Your task to perform on an android device: Open Youtube and go to the subscriptions tab Image 0: 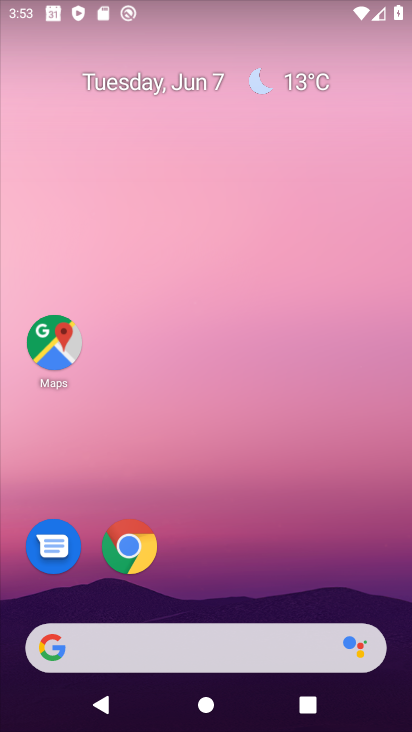
Step 0: drag from (166, 597) to (218, 216)
Your task to perform on an android device: Open Youtube and go to the subscriptions tab Image 1: 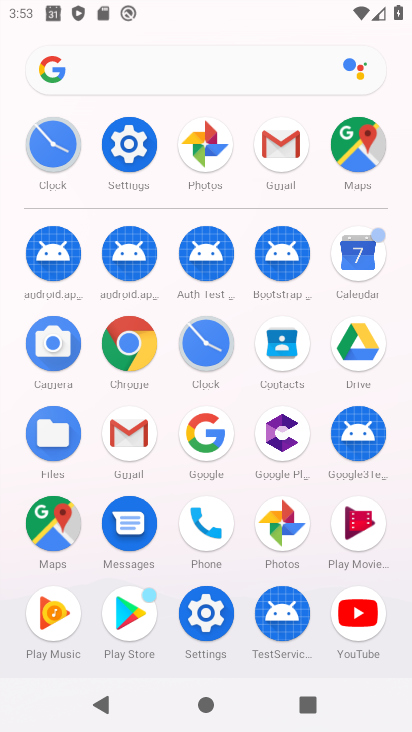
Step 1: click (371, 619)
Your task to perform on an android device: Open Youtube and go to the subscriptions tab Image 2: 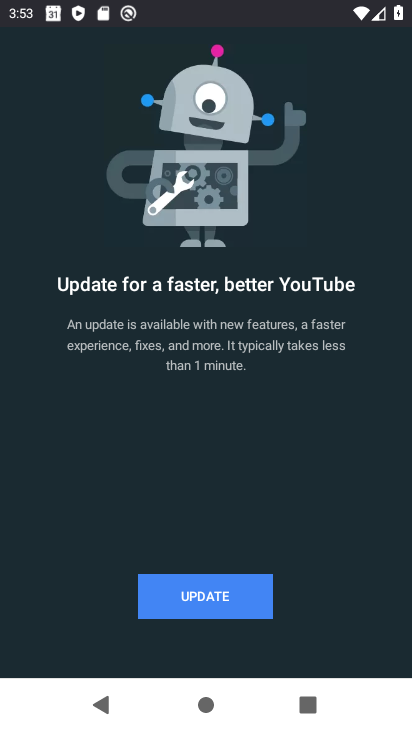
Step 2: click (181, 617)
Your task to perform on an android device: Open Youtube and go to the subscriptions tab Image 3: 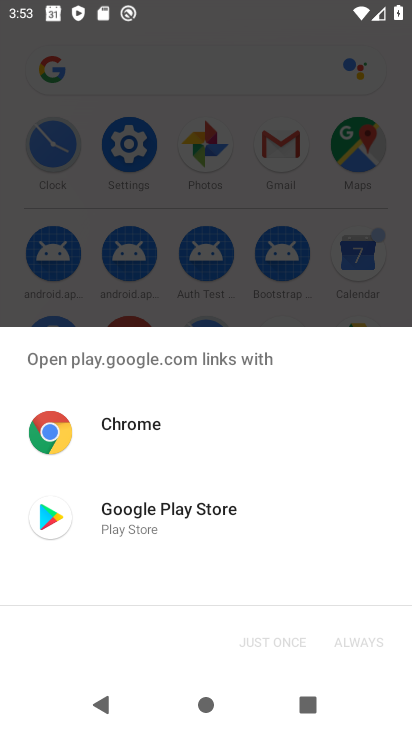
Step 3: click (172, 545)
Your task to perform on an android device: Open Youtube and go to the subscriptions tab Image 4: 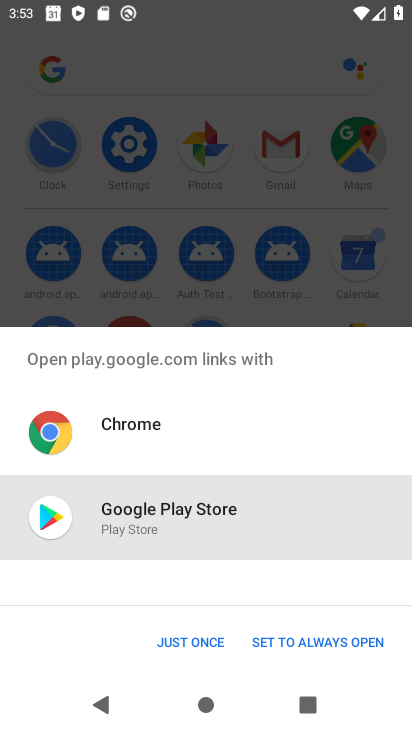
Step 4: click (182, 643)
Your task to perform on an android device: Open Youtube and go to the subscriptions tab Image 5: 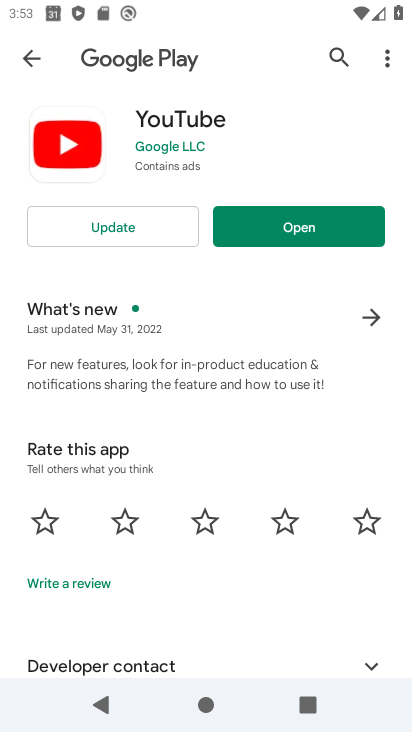
Step 5: click (138, 227)
Your task to perform on an android device: Open Youtube and go to the subscriptions tab Image 6: 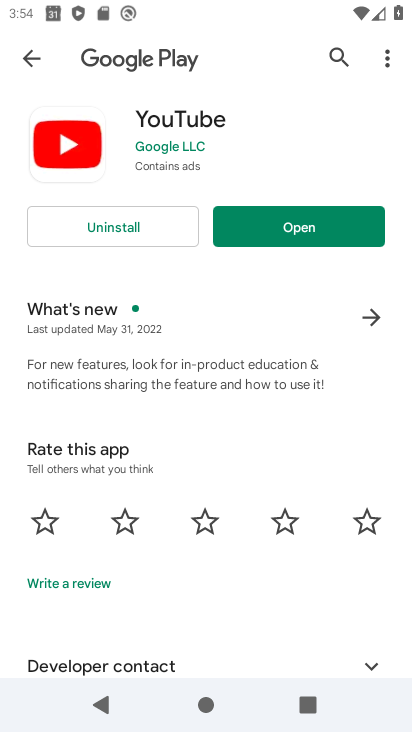
Step 6: click (318, 241)
Your task to perform on an android device: Open Youtube and go to the subscriptions tab Image 7: 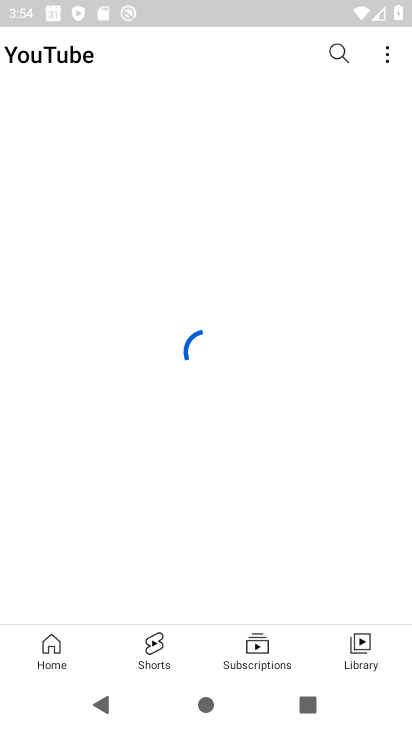
Step 7: click (268, 647)
Your task to perform on an android device: Open Youtube and go to the subscriptions tab Image 8: 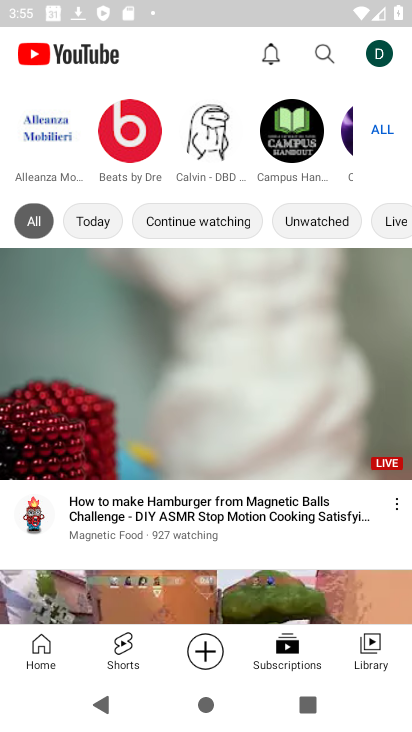
Step 8: task complete